Your task to perform on an android device: Open calendar and show me the first week of next month Image 0: 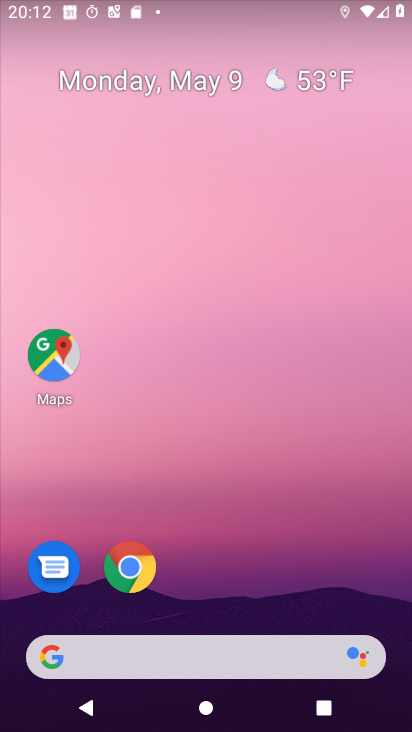
Step 0: drag from (327, 614) to (303, 21)
Your task to perform on an android device: Open calendar and show me the first week of next month Image 1: 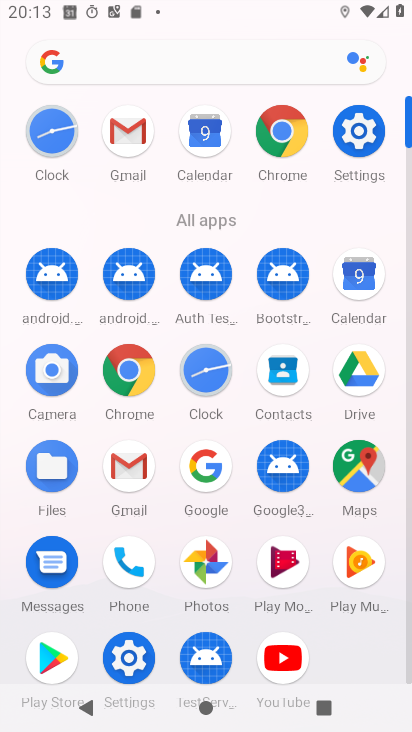
Step 1: click (205, 134)
Your task to perform on an android device: Open calendar and show me the first week of next month Image 2: 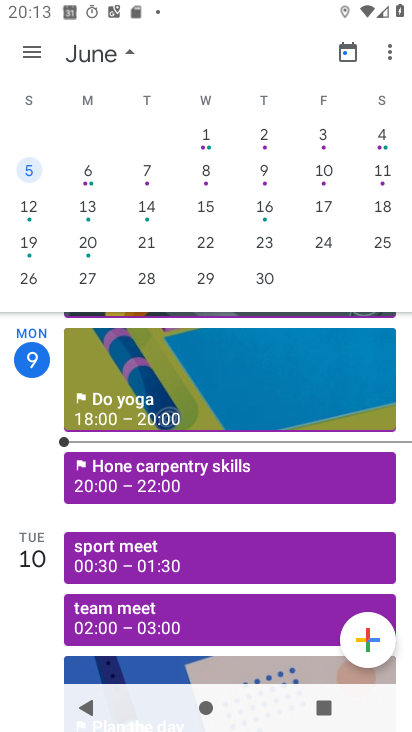
Step 2: click (206, 136)
Your task to perform on an android device: Open calendar and show me the first week of next month Image 3: 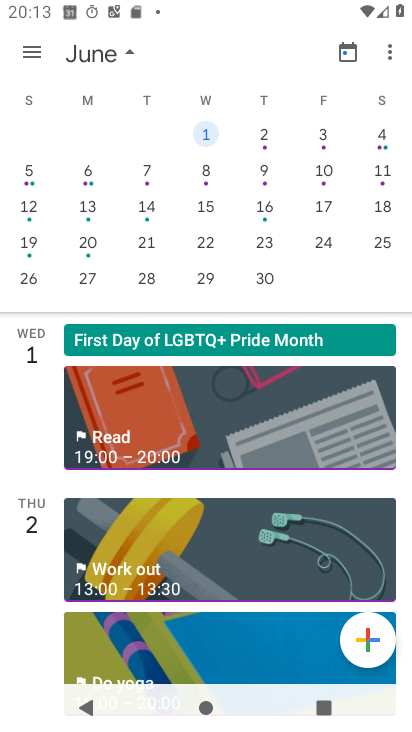
Step 3: task complete